Your task to perform on an android device: choose inbox layout in the gmail app Image 0: 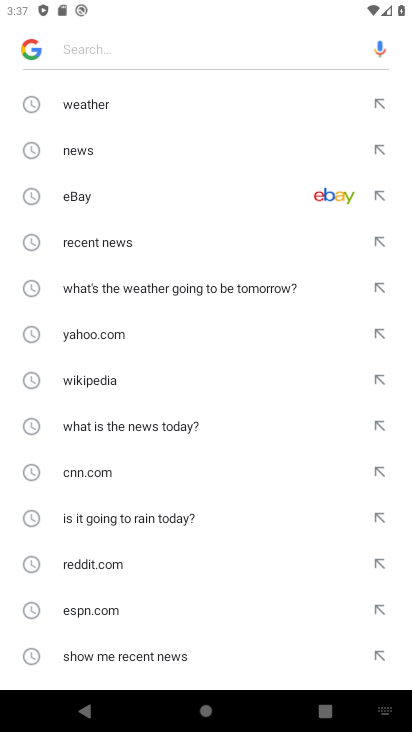
Step 0: press home button
Your task to perform on an android device: choose inbox layout in the gmail app Image 1: 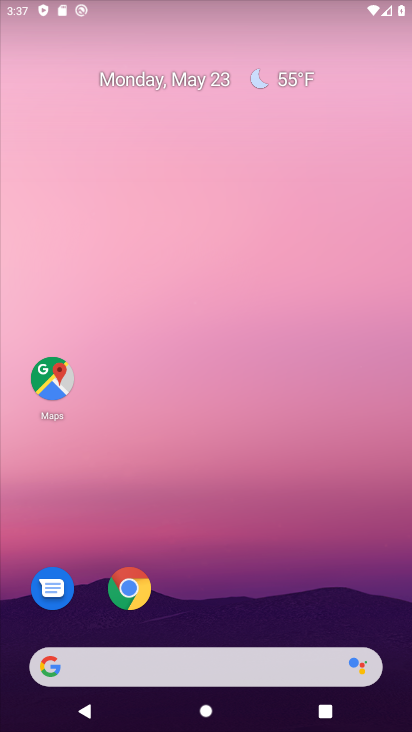
Step 1: drag from (242, 557) to (312, 1)
Your task to perform on an android device: choose inbox layout in the gmail app Image 2: 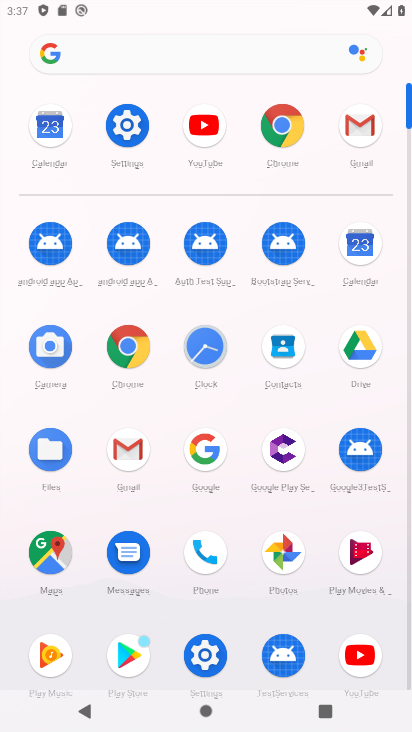
Step 2: click (360, 122)
Your task to perform on an android device: choose inbox layout in the gmail app Image 3: 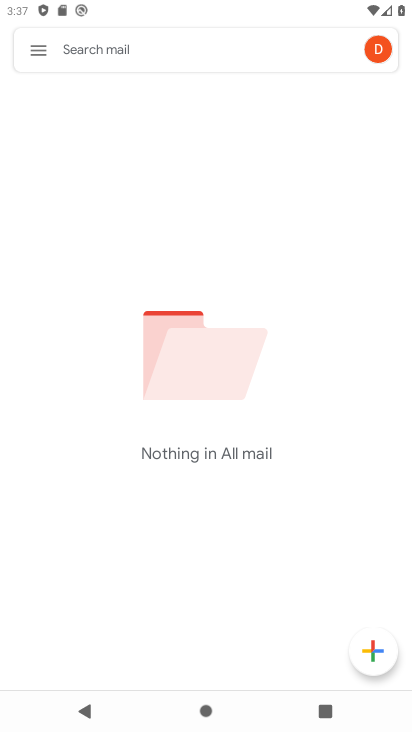
Step 3: click (15, 48)
Your task to perform on an android device: choose inbox layout in the gmail app Image 4: 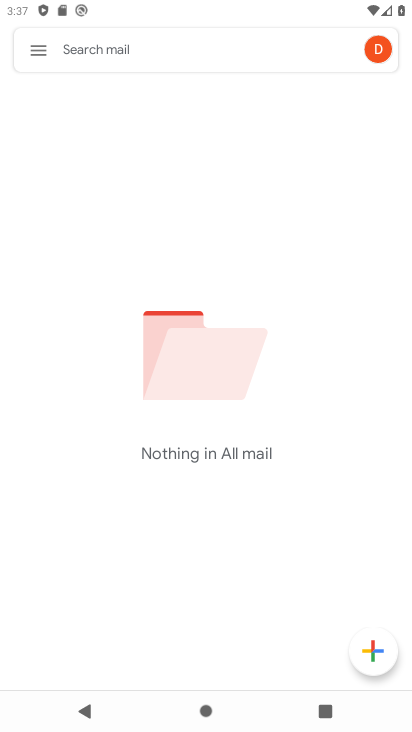
Step 4: click (40, 54)
Your task to perform on an android device: choose inbox layout in the gmail app Image 5: 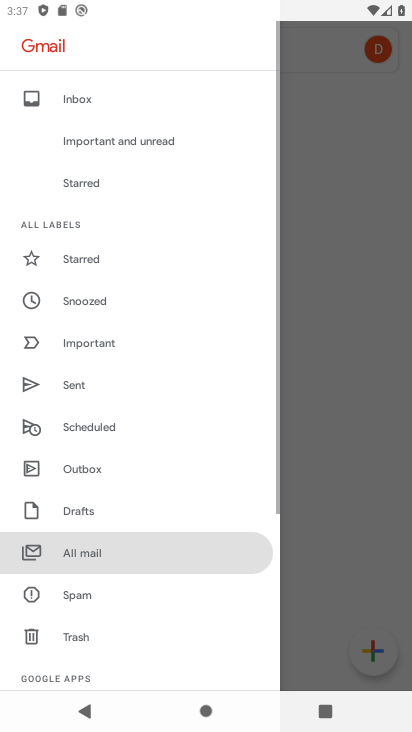
Step 5: drag from (93, 638) to (183, 55)
Your task to perform on an android device: choose inbox layout in the gmail app Image 6: 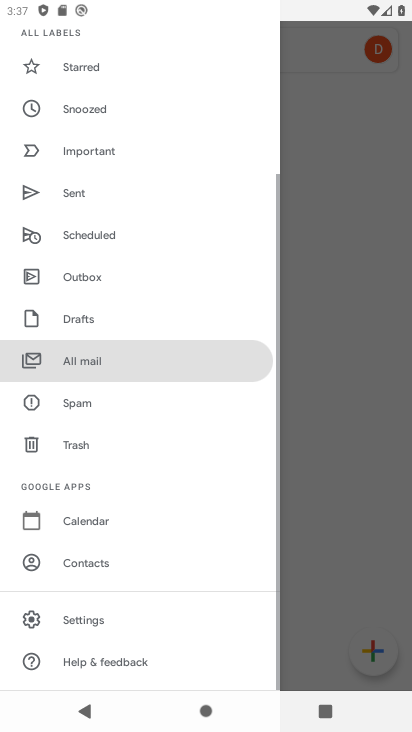
Step 6: click (73, 629)
Your task to perform on an android device: choose inbox layout in the gmail app Image 7: 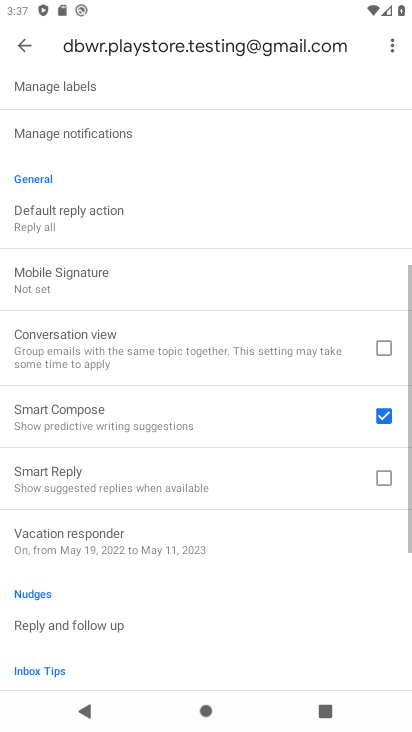
Step 7: drag from (101, 131) to (139, 403)
Your task to perform on an android device: choose inbox layout in the gmail app Image 8: 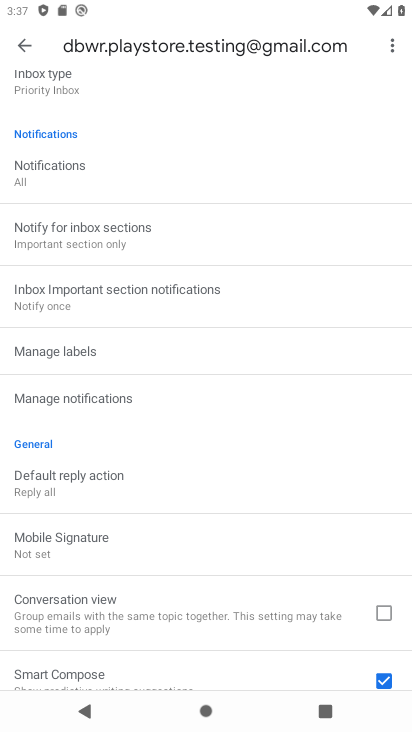
Step 8: drag from (94, 134) to (113, 448)
Your task to perform on an android device: choose inbox layout in the gmail app Image 9: 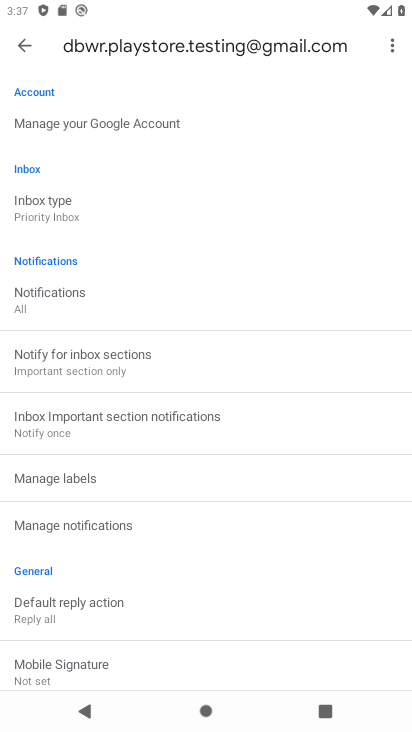
Step 9: click (96, 204)
Your task to perform on an android device: choose inbox layout in the gmail app Image 10: 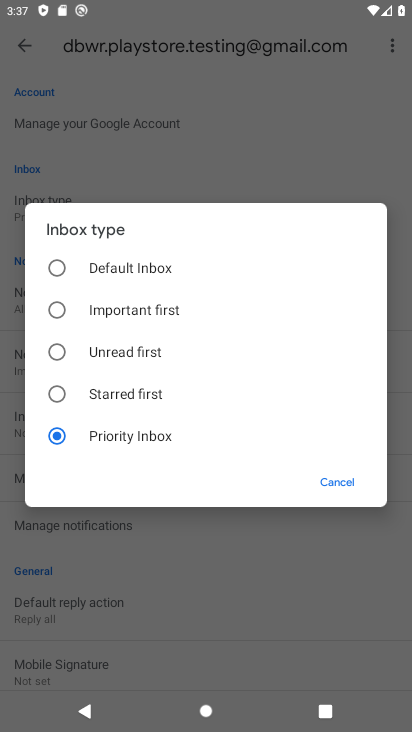
Step 10: click (131, 282)
Your task to perform on an android device: choose inbox layout in the gmail app Image 11: 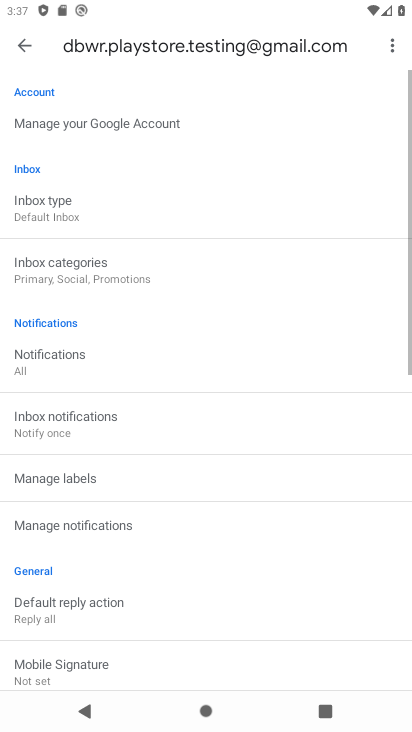
Step 11: task complete